Your task to perform on an android device: toggle wifi Image 0: 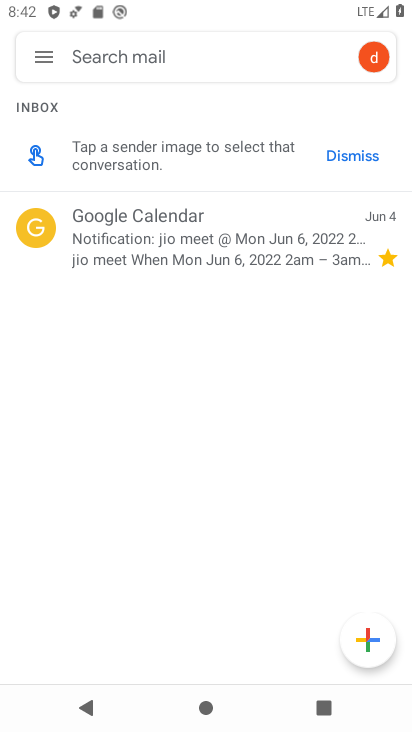
Step 0: press back button
Your task to perform on an android device: toggle wifi Image 1: 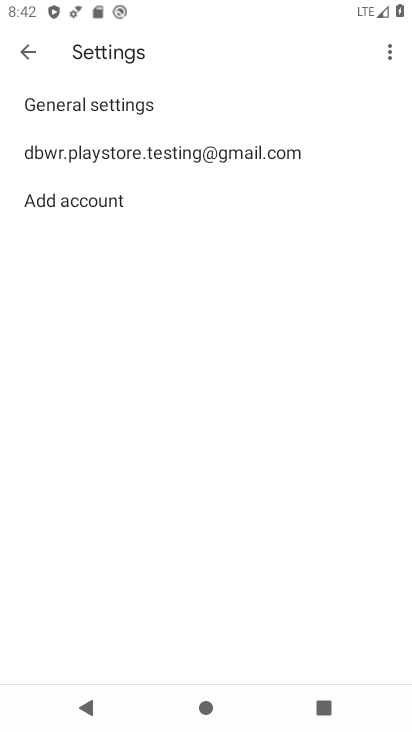
Step 1: press back button
Your task to perform on an android device: toggle wifi Image 2: 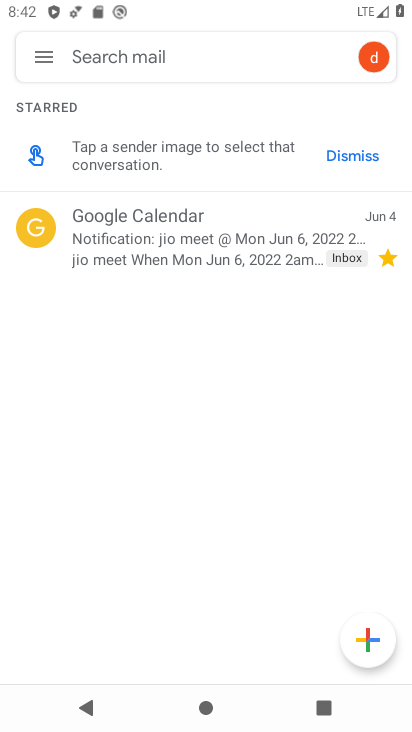
Step 2: press back button
Your task to perform on an android device: toggle wifi Image 3: 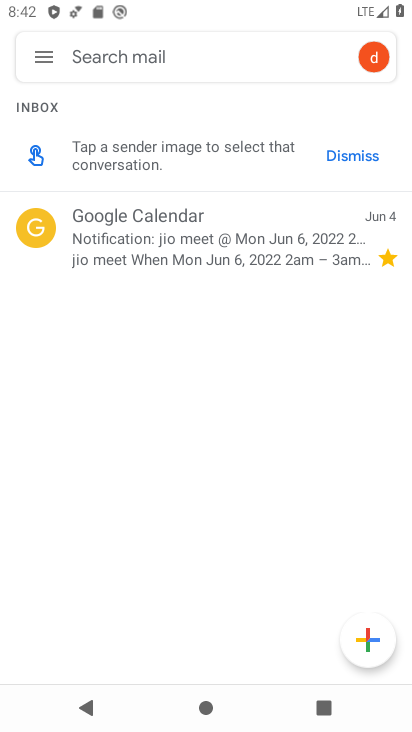
Step 3: press back button
Your task to perform on an android device: toggle wifi Image 4: 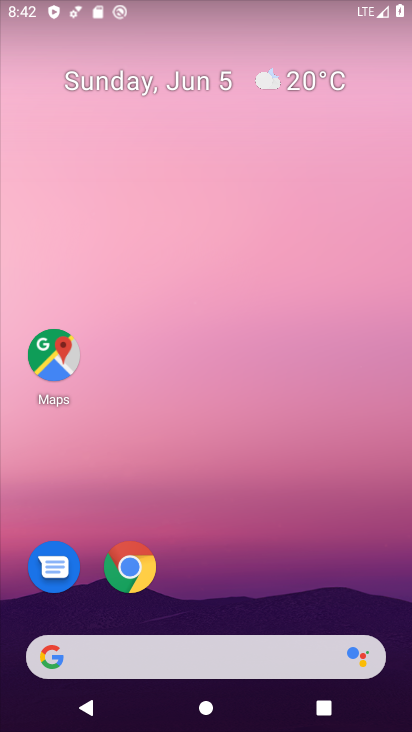
Step 4: drag from (295, 528) to (246, 61)
Your task to perform on an android device: toggle wifi Image 5: 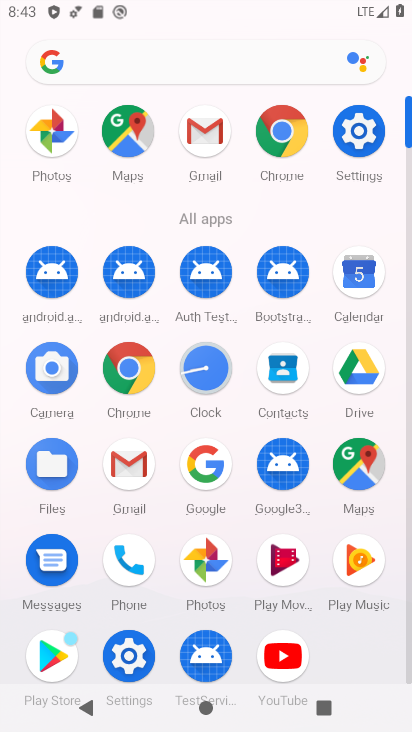
Step 5: click (360, 130)
Your task to perform on an android device: toggle wifi Image 6: 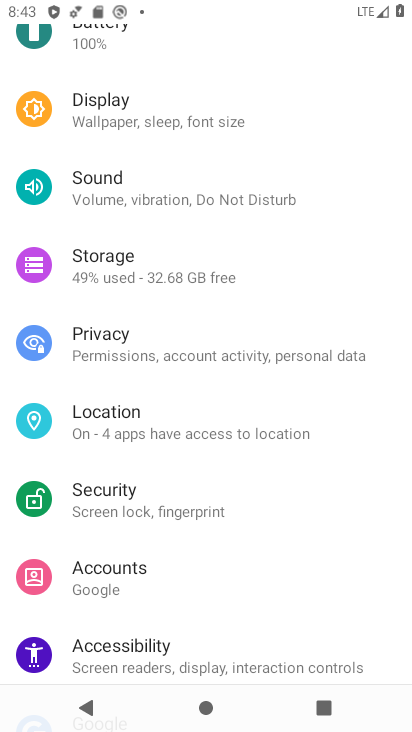
Step 6: drag from (175, 330) to (177, 436)
Your task to perform on an android device: toggle wifi Image 7: 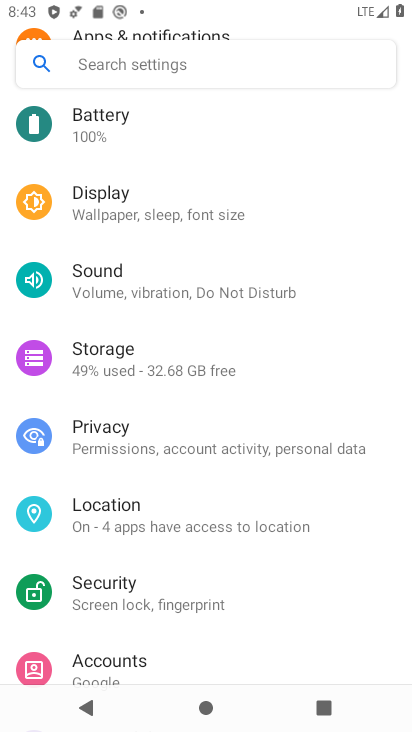
Step 7: drag from (171, 165) to (182, 268)
Your task to perform on an android device: toggle wifi Image 8: 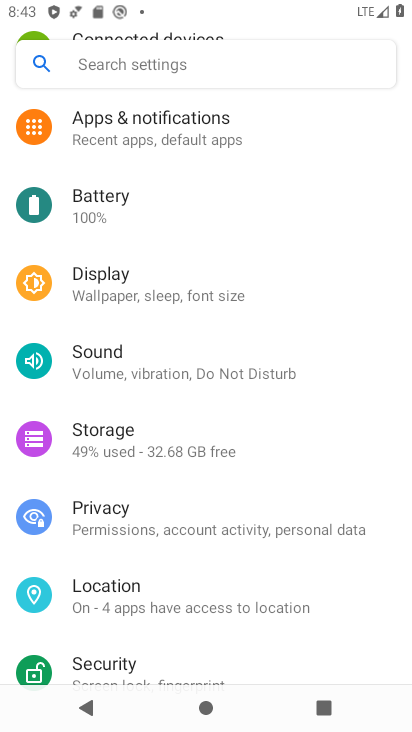
Step 8: drag from (209, 213) to (218, 317)
Your task to perform on an android device: toggle wifi Image 9: 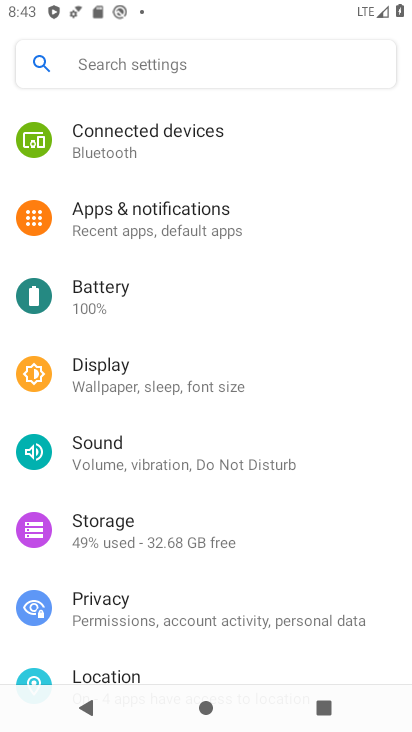
Step 9: drag from (157, 182) to (187, 287)
Your task to perform on an android device: toggle wifi Image 10: 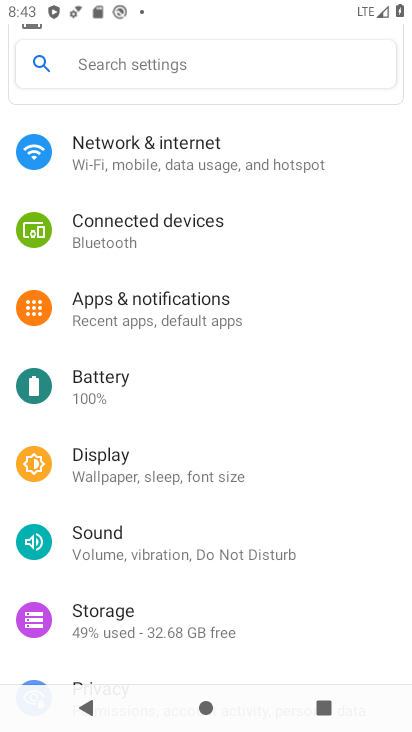
Step 10: click (149, 151)
Your task to perform on an android device: toggle wifi Image 11: 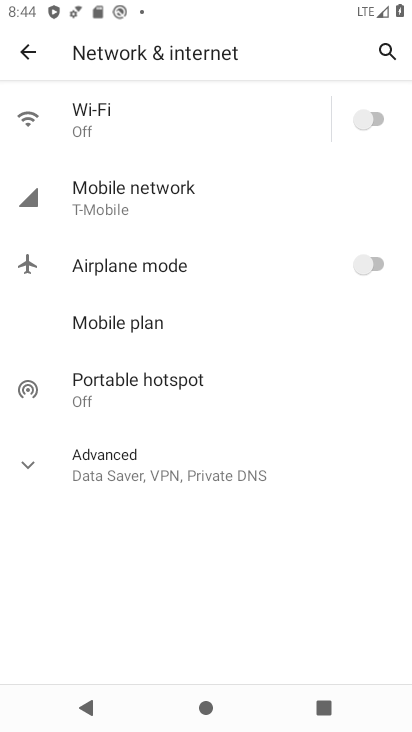
Step 11: click (366, 114)
Your task to perform on an android device: toggle wifi Image 12: 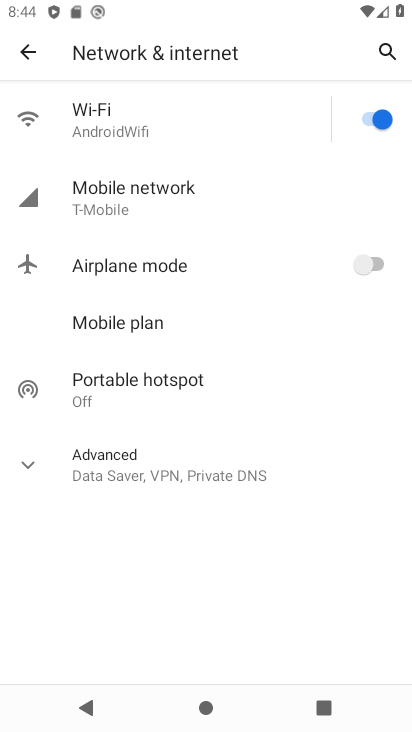
Step 12: task complete